Your task to perform on an android device: Go to accessibility settings Image 0: 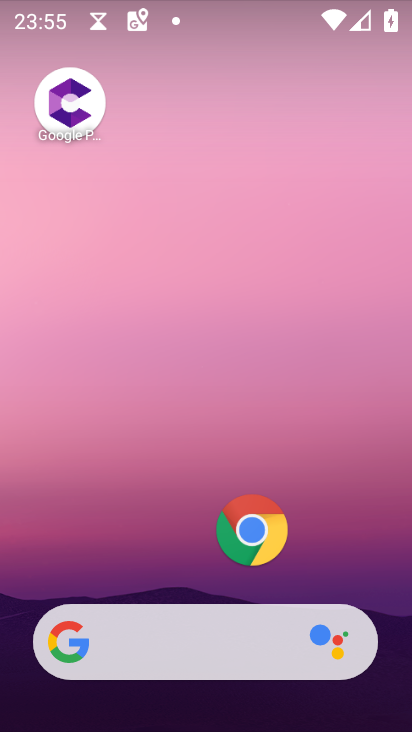
Step 0: drag from (357, 581) to (309, 367)
Your task to perform on an android device: Go to accessibility settings Image 1: 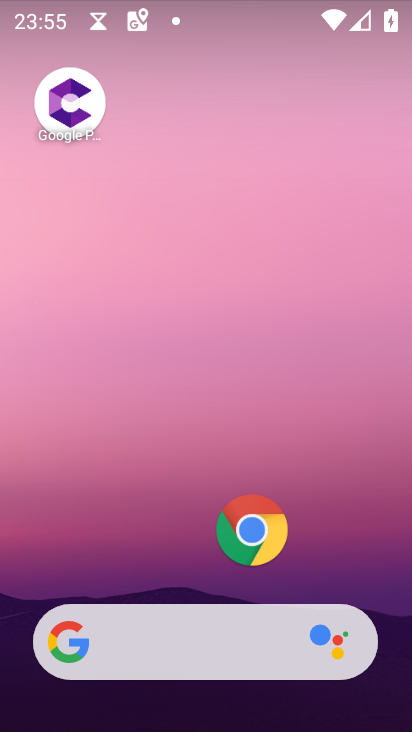
Step 1: drag from (343, 551) to (246, 200)
Your task to perform on an android device: Go to accessibility settings Image 2: 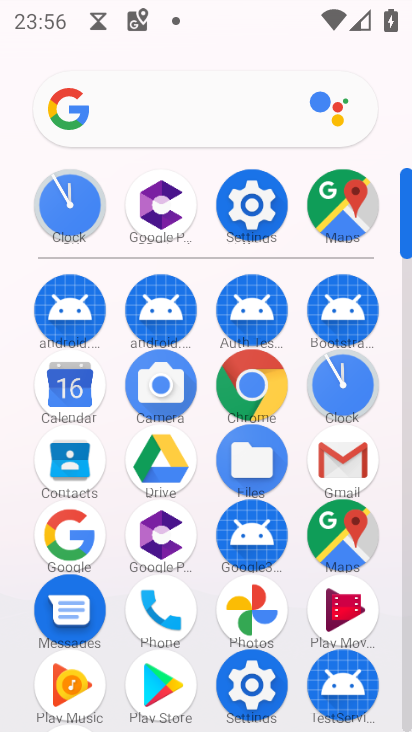
Step 2: click (252, 185)
Your task to perform on an android device: Go to accessibility settings Image 3: 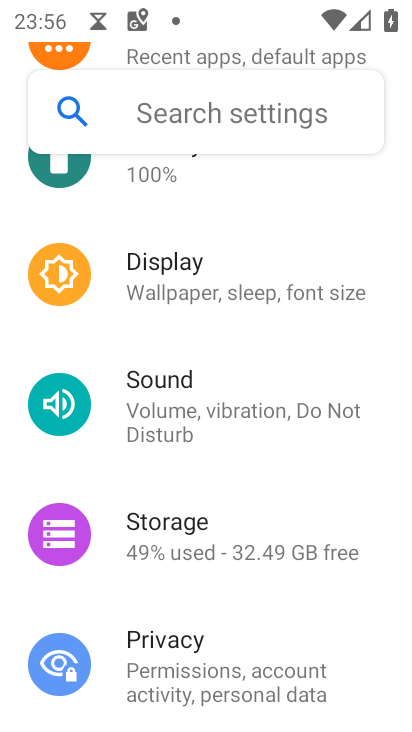
Step 3: drag from (307, 610) to (229, 199)
Your task to perform on an android device: Go to accessibility settings Image 4: 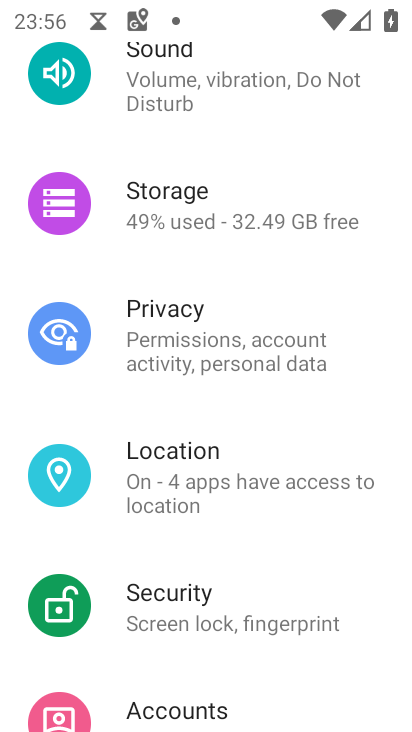
Step 4: drag from (258, 570) to (250, 221)
Your task to perform on an android device: Go to accessibility settings Image 5: 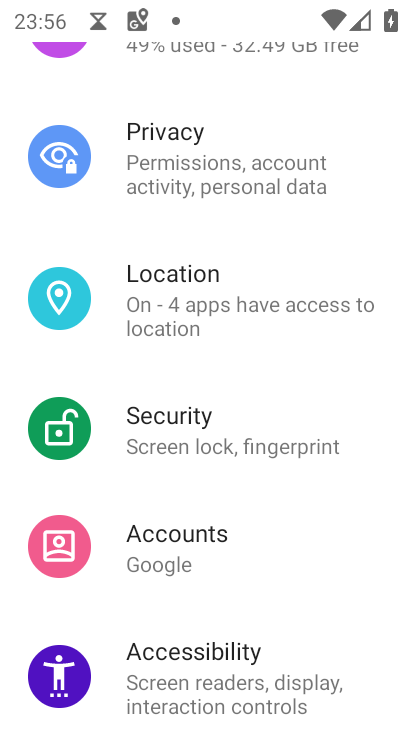
Step 5: click (267, 696)
Your task to perform on an android device: Go to accessibility settings Image 6: 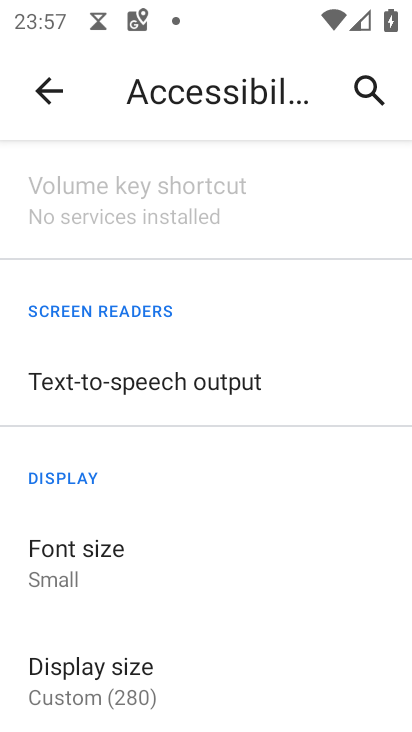
Step 6: task complete